Your task to perform on an android device: turn pop-ups off in chrome Image 0: 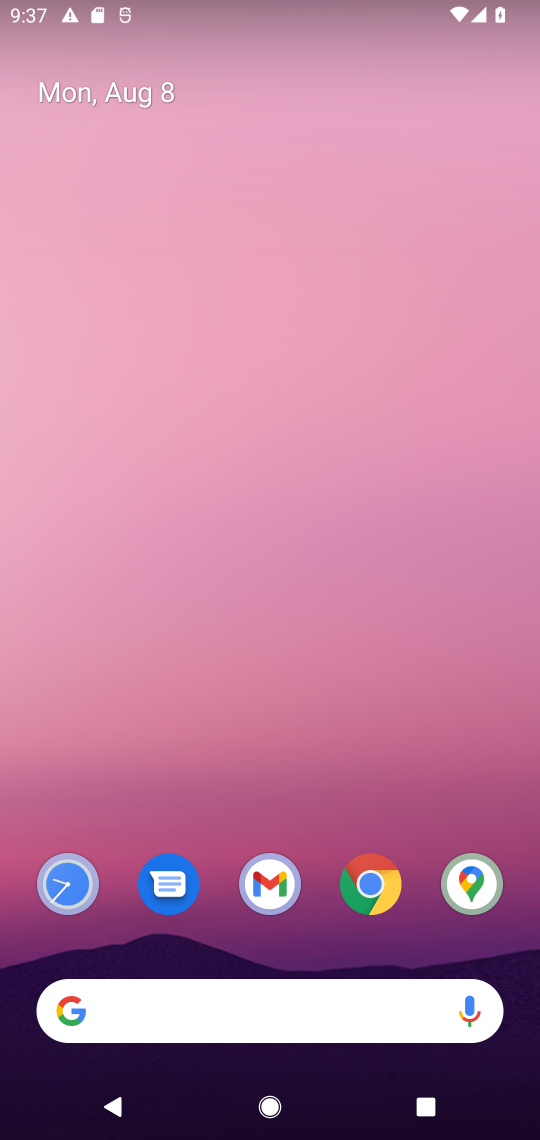
Step 0: click (364, 884)
Your task to perform on an android device: turn pop-ups off in chrome Image 1: 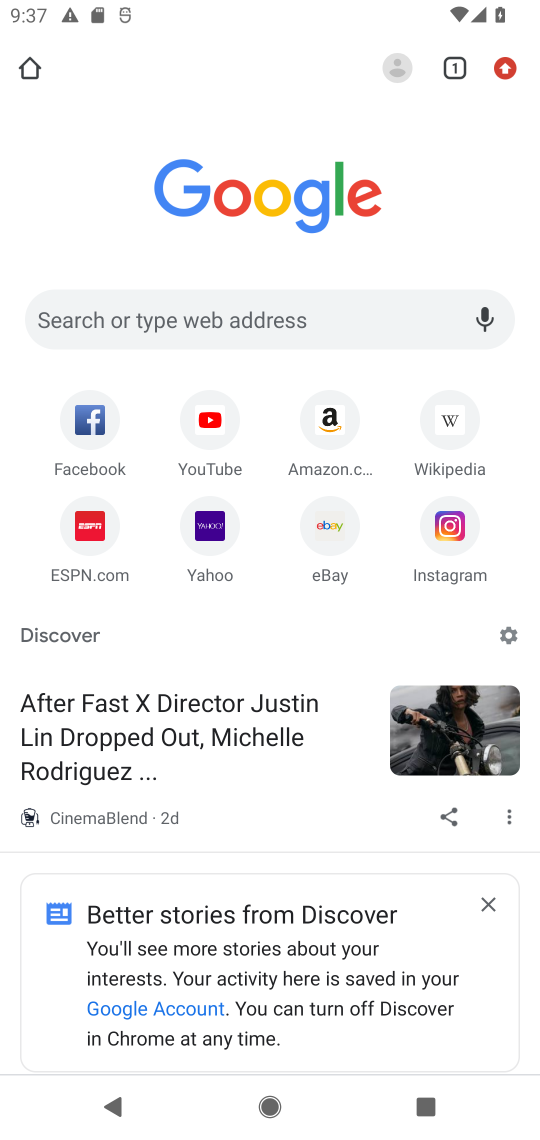
Step 1: click (506, 69)
Your task to perform on an android device: turn pop-ups off in chrome Image 2: 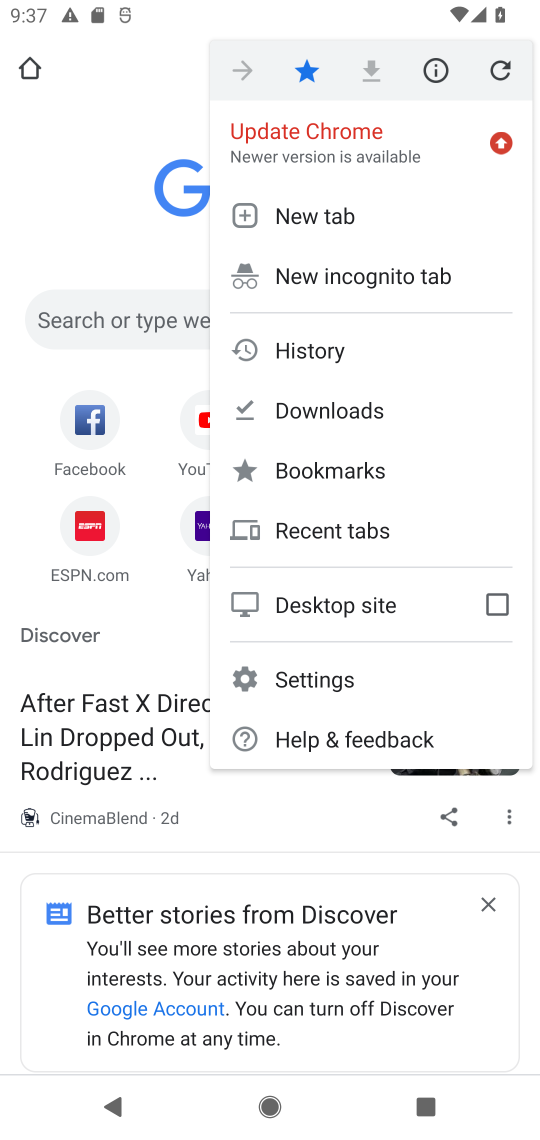
Step 2: click (322, 678)
Your task to perform on an android device: turn pop-ups off in chrome Image 3: 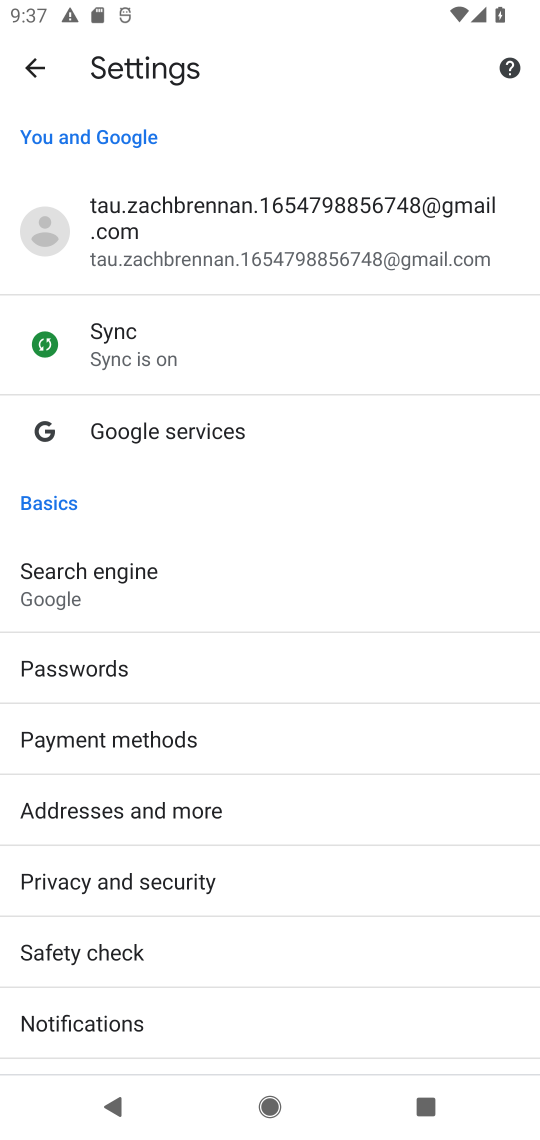
Step 3: drag from (309, 904) to (270, 390)
Your task to perform on an android device: turn pop-ups off in chrome Image 4: 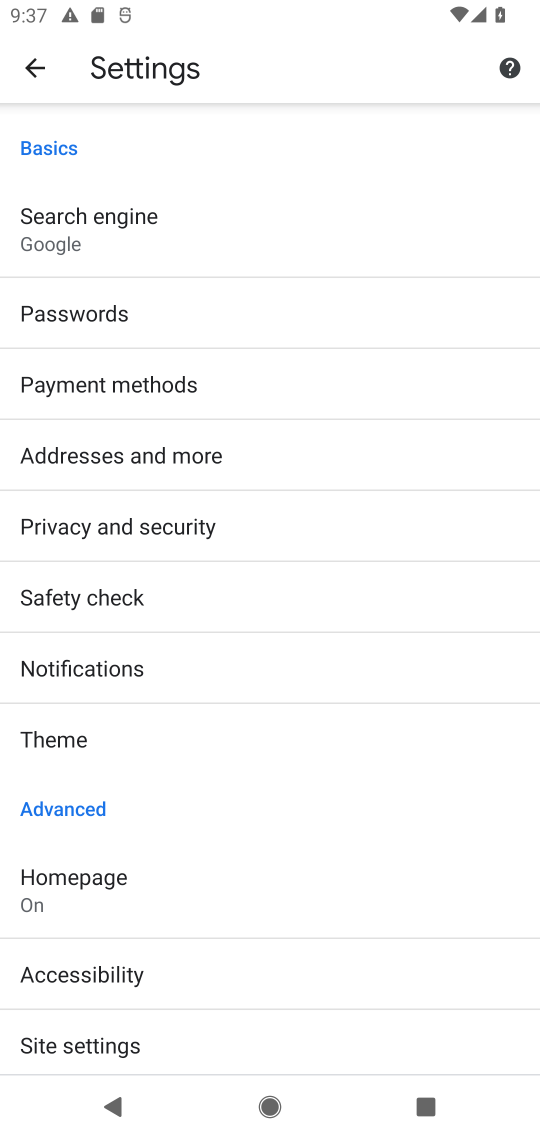
Step 4: drag from (324, 910) to (322, 368)
Your task to perform on an android device: turn pop-ups off in chrome Image 5: 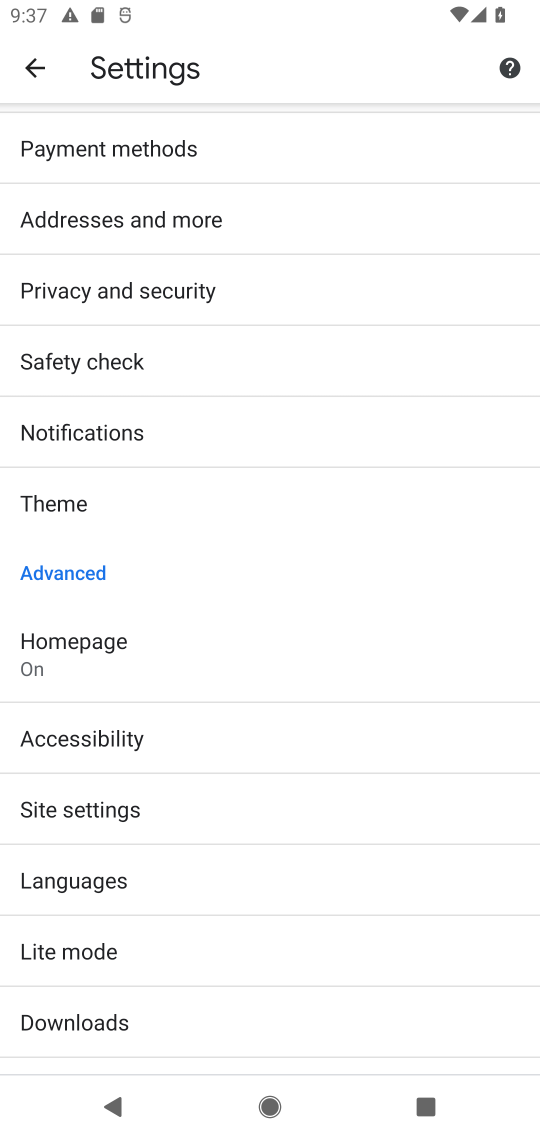
Step 5: click (106, 810)
Your task to perform on an android device: turn pop-ups off in chrome Image 6: 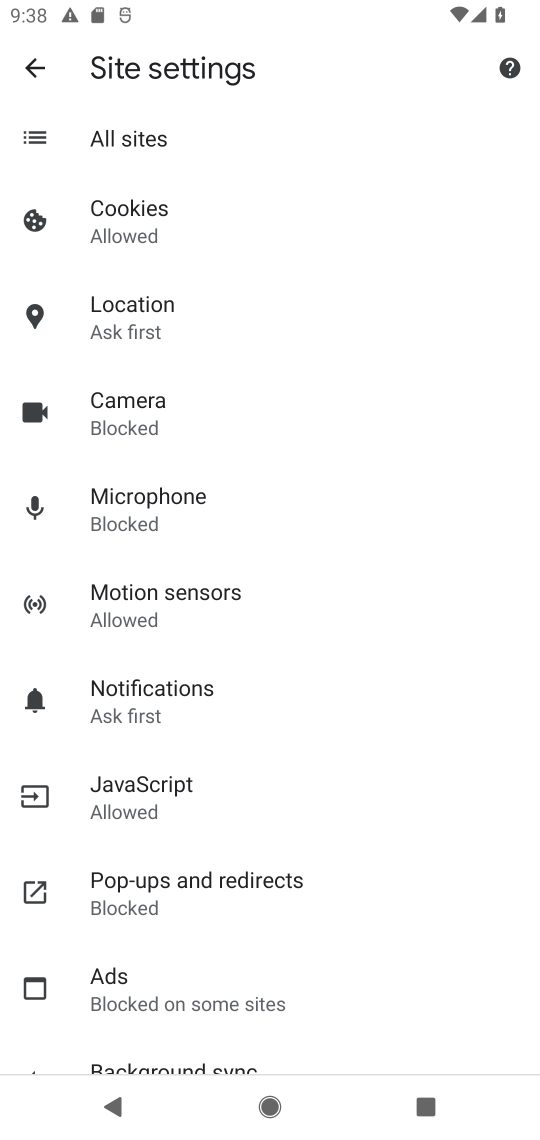
Step 6: click (187, 876)
Your task to perform on an android device: turn pop-ups off in chrome Image 7: 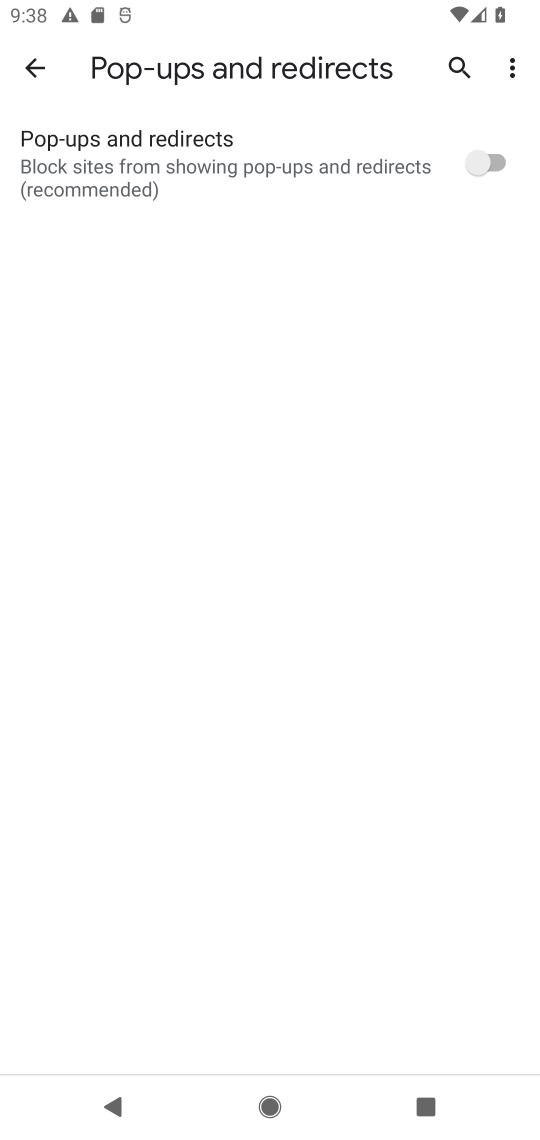
Step 7: task complete